Your task to perform on an android device: Go to Google Image 0: 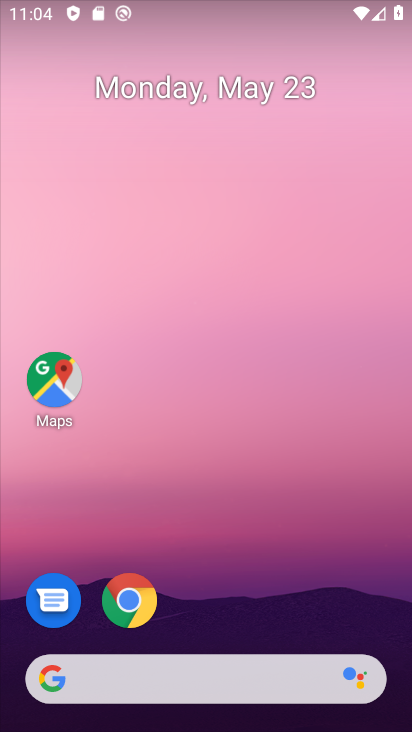
Step 0: click (51, 671)
Your task to perform on an android device: Go to Google Image 1: 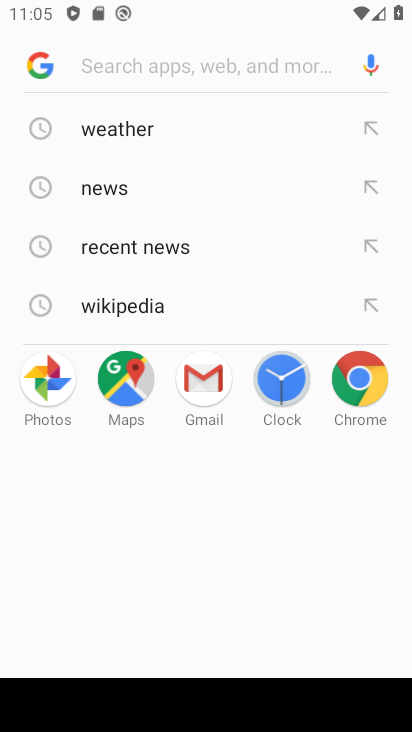
Step 1: click (59, 66)
Your task to perform on an android device: Go to Google Image 2: 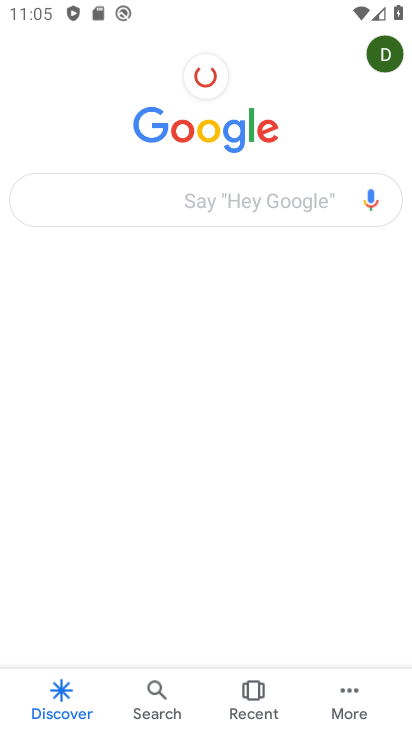
Step 2: task complete